Your task to perform on an android device: uninstall "Flipkart Online Shopping App" Image 0: 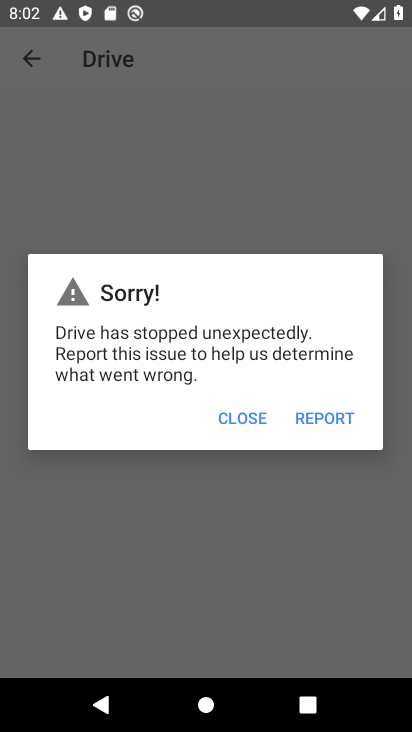
Step 0: press home button
Your task to perform on an android device: uninstall "Flipkart Online Shopping App" Image 1: 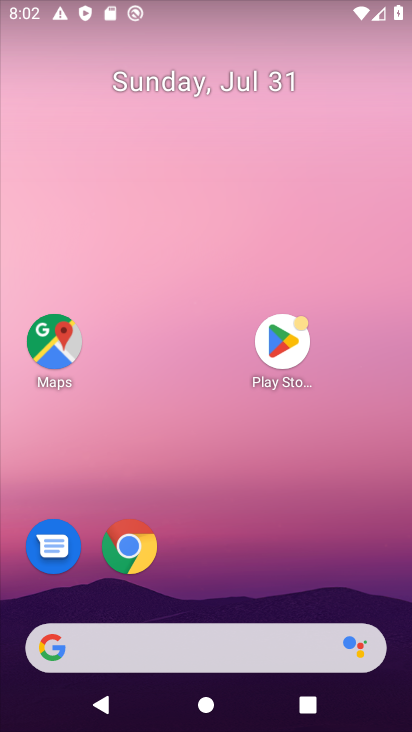
Step 1: task complete